Your task to perform on an android device: turn on sleep mode Image 0: 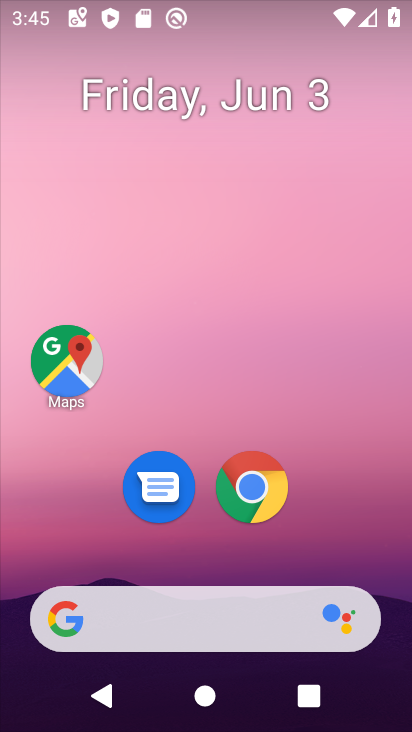
Step 0: click (270, 132)
Your task to perform on an android device: turn on sleep mode Image 1: 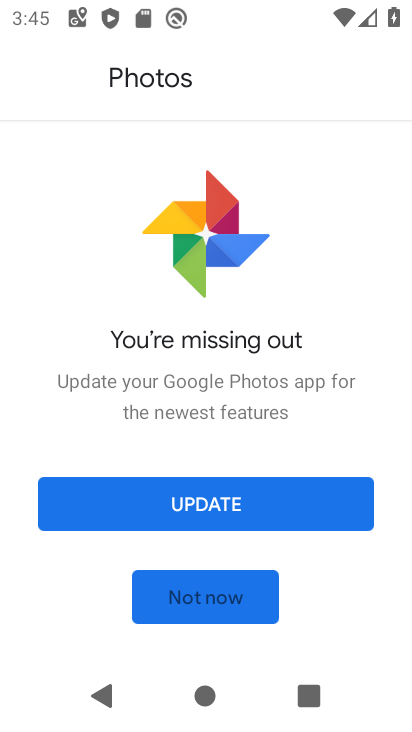
Step 1: press home button
Your task to perform on an android device: turn on sleep mode Image 2: 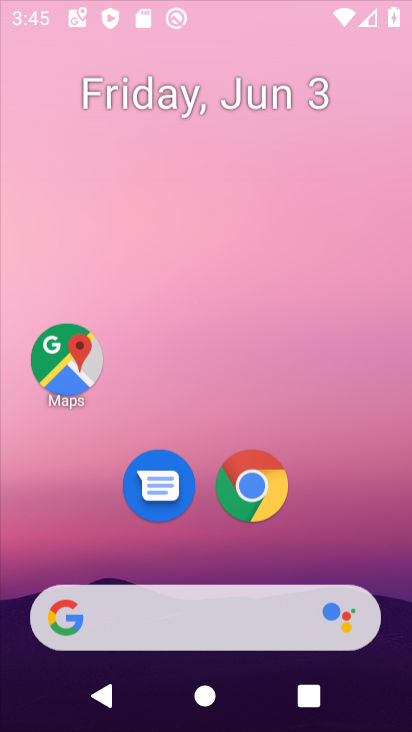
Step 2: drag from (270, 307) to (294, 197)
Your task to perform on an android device: turn on sleep mode Image 3: 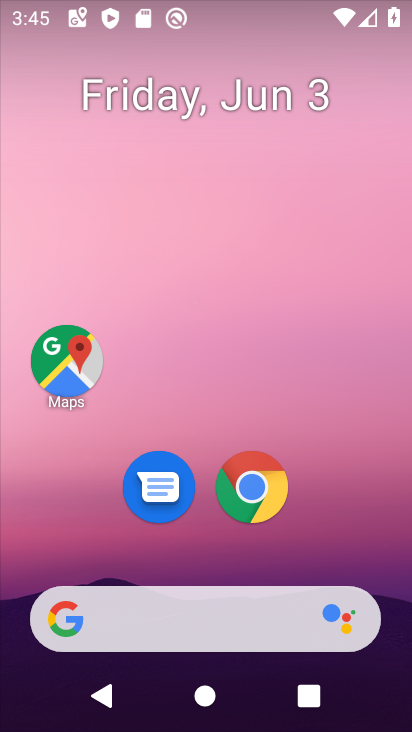
Step 3: drag from (207, 504) to (204, 6)
Your task to perform on an android device: turn on sleep mode Image 4: 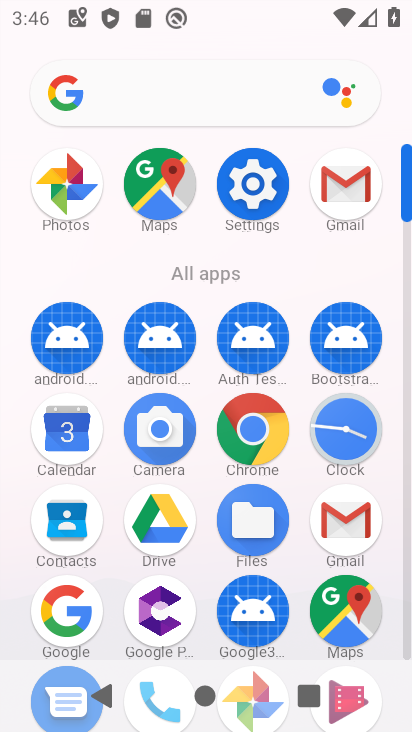
Step 4: click (254, 193)
Your task to perform on an android device: turn on sleep mode Image 5: 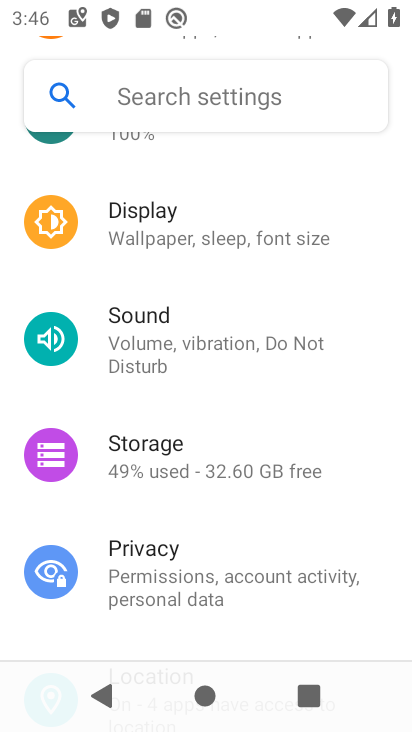
Step 5: click (190, 238)
Your task to perform on an android device: turn on sleep mode Image 6: 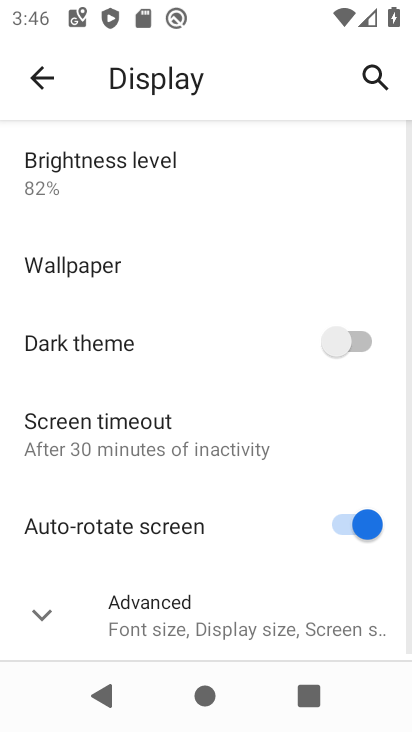
Step 6: click (161, 446)
Your task to perform on an android device: turn on sleep mode Image 7: 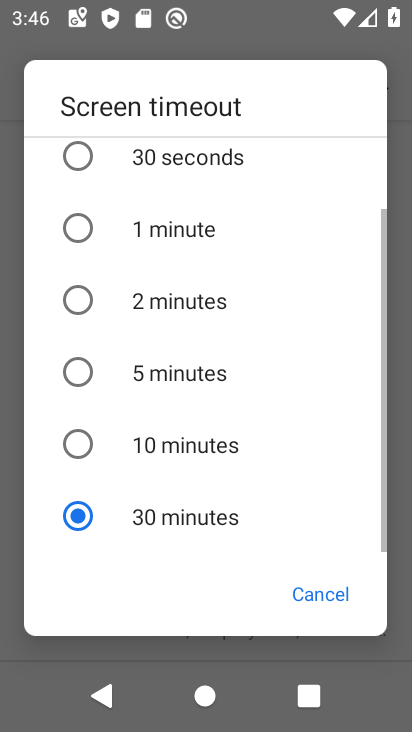
Step 7: task complete